Your task to perform on an android device: Open Yahoo.com Image 0: 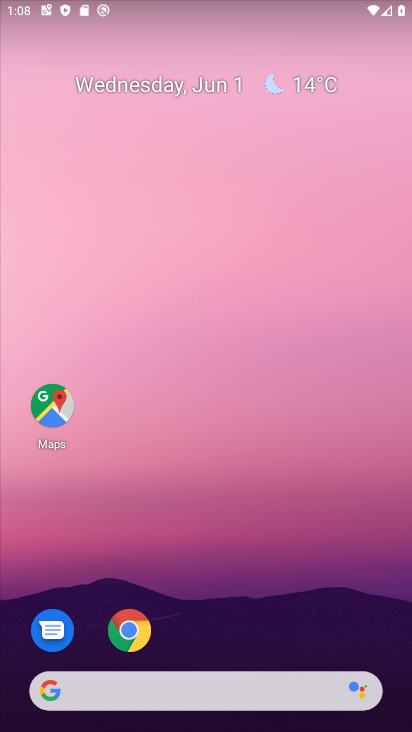
Step 0: press home button
Your task to perform on an android device: Open Yahoo.com Image 1: 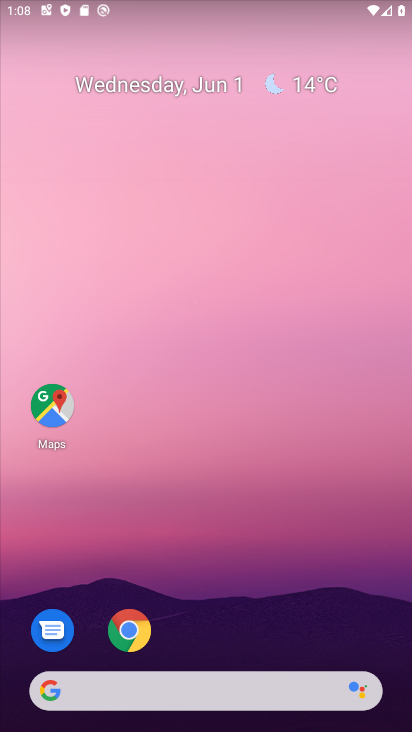
Step 1: click (126, 629)
Your task to perform on an android device: Open Yahoo.com Image 2: 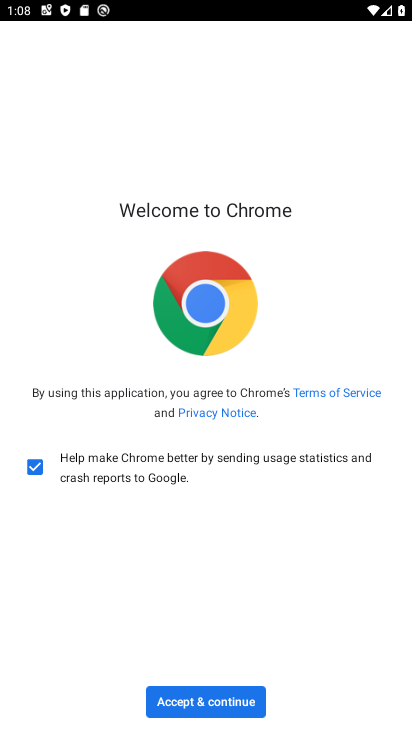
Step 2: click (196, 695)
Your task to perform on an android device: Open Yahoo.com Image 3: 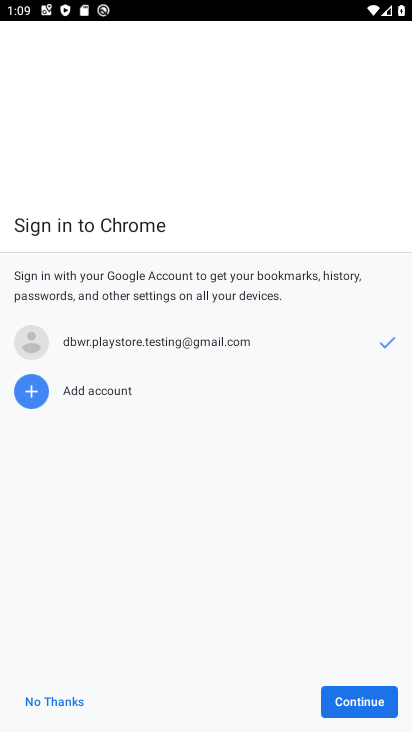
Step 3: click (362, 698)
Your task to perform on an android device: Open Yahoo.com Image 4: 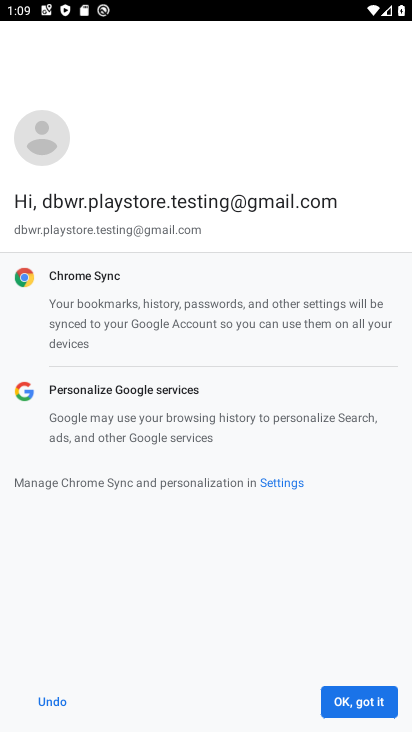
Step 4: click (368, 704)
Your task to perform on an android device: Open Yahoo.com Image 5: 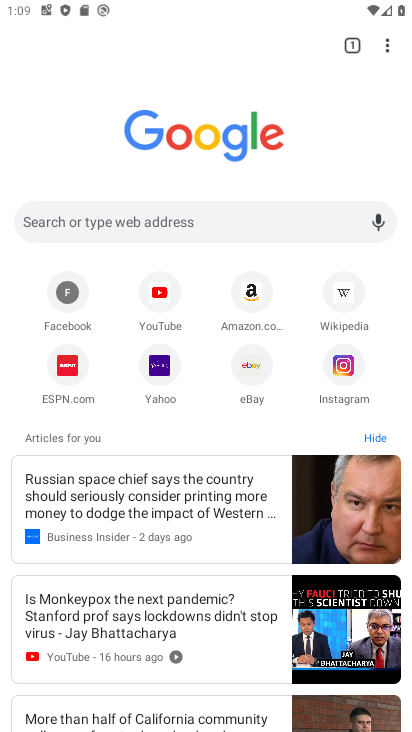
Step 5: click (160, 363)
Your task to perform on an android device: Open Yahoo.com Image 6: 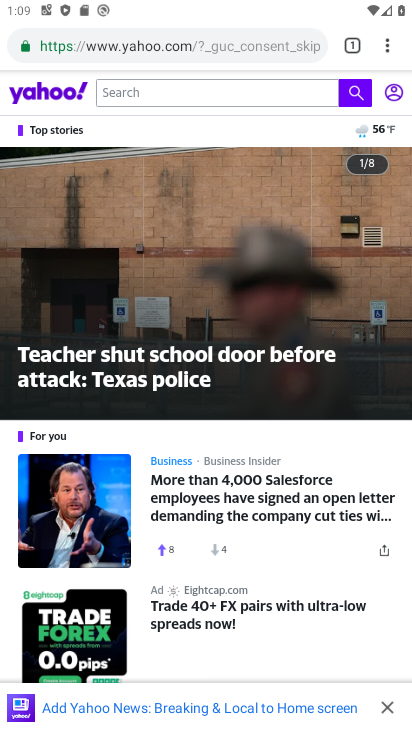
Step 6: task complete